Your task to perform on an android device: Open the phone app and click the voicemail tab. Image 0: 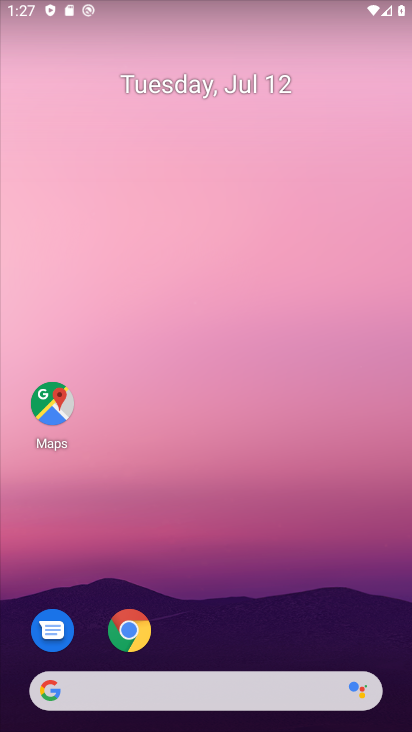
Step 0: drag from (378, 635) to (307, 155)
Your task to perform on an android device: Open the phone app and click the voicemail tab. Image 1: 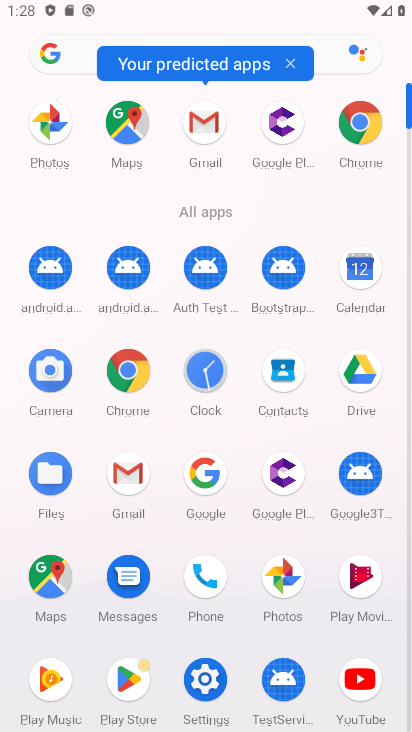
Step 1: click (203, 566)
Your task to perform on an android device: Open the phone app and click the voicemail tab. Image 2: 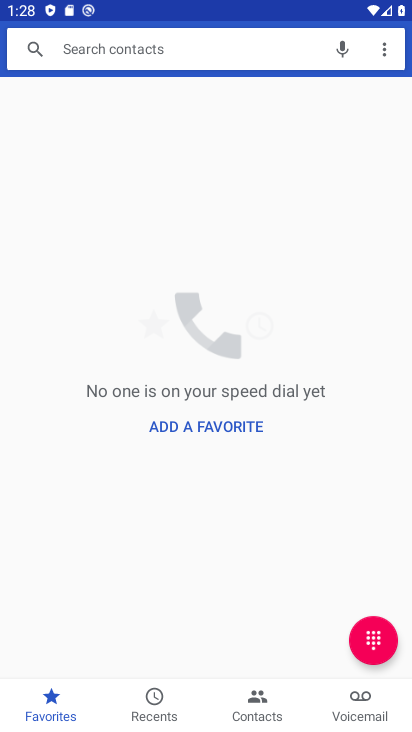
Step 2: click (361, 700)
Your task to perform on an android device: Open the phone app and click the voicemail tab. Image 3: 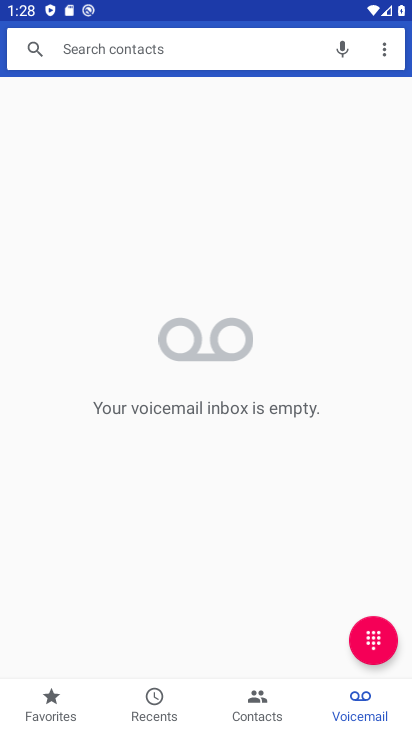
Step 3: task complete